Your task to perform on an android device: Open calendar and show me the second week of next month Image 0: 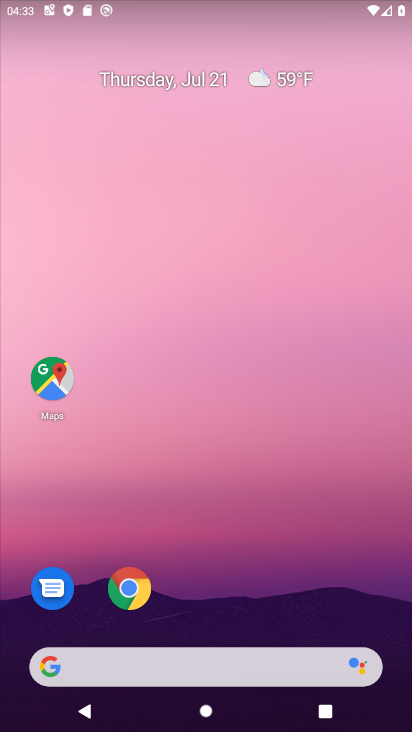
Step 0: drag from (202, 605) to (240, 81)
Your task to perform on an android device: Open calendar and show me the second week of next month Image 1: 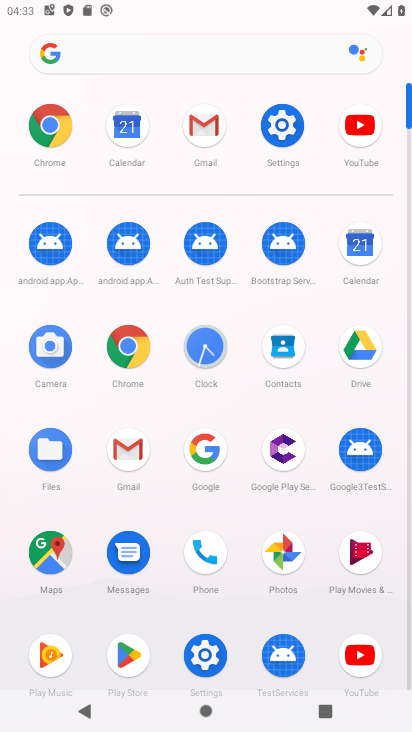
Step 1: click (357, 250)
Your task to perform on an android device: Open calendar and show me the second week of next month Image 2: 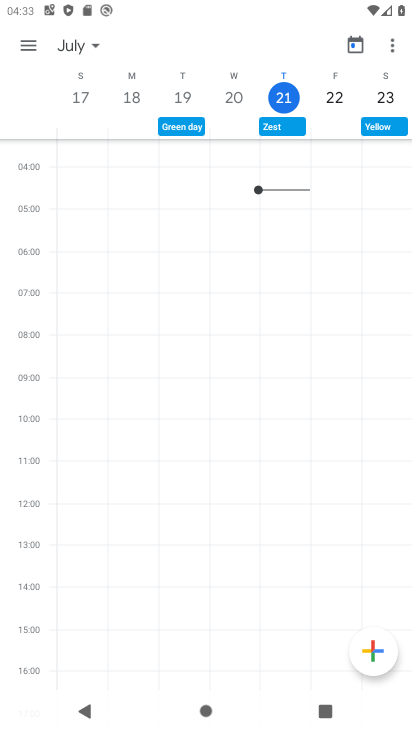
Step 2: task complete